Your task to perform on an android device: Open notification settings Image 0: 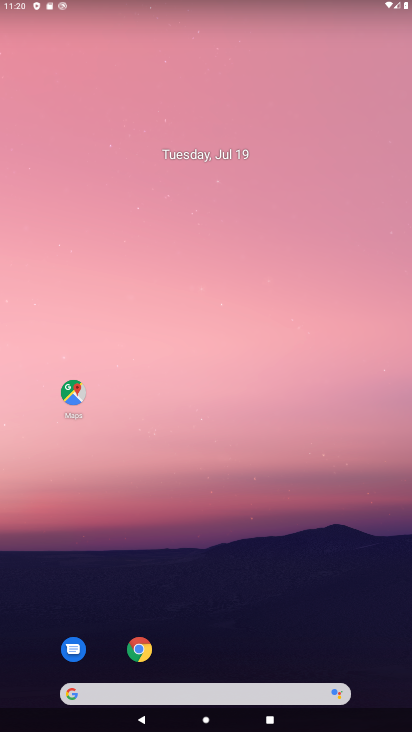
Step 0: drag from (235, 596) to (197, 229)
Your task to perform on an android device: Open notification settings Image 1: 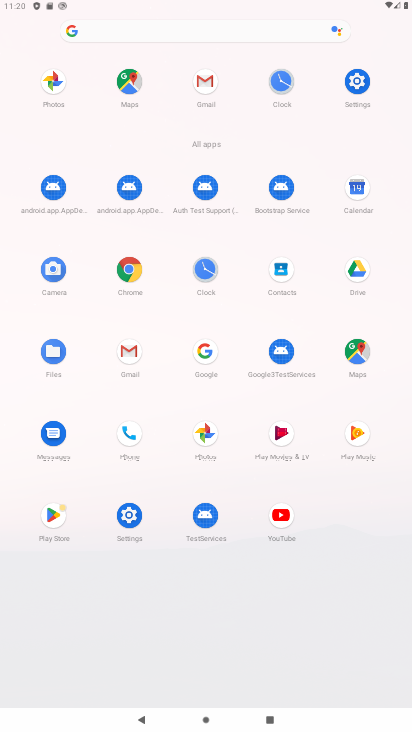
Step 1: click (138, 521)
Your task to perform on an android device: Open notification settings Image 2: 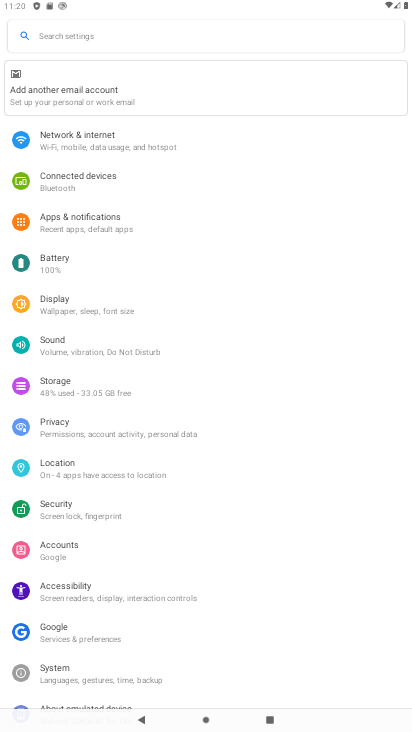
Step 2: click (80, 224)
Your task to perform on an android device: Open notification settings Image 3: 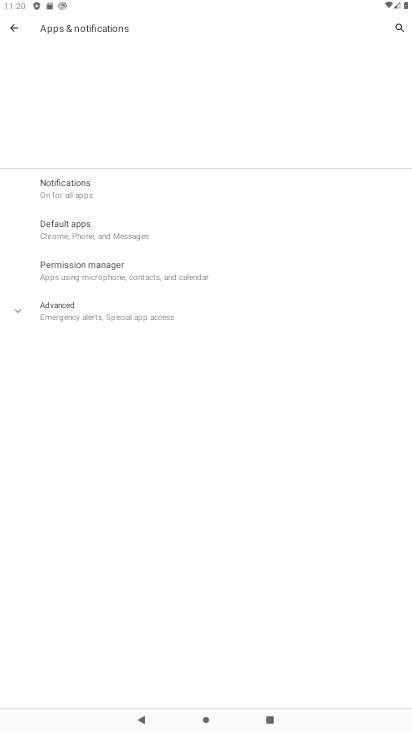
Step 3: task complete